Your task to perform on an android device: Open Google Chrome Image 0: 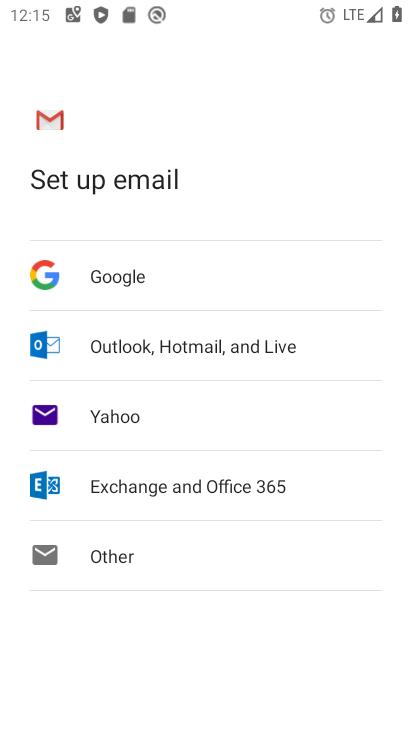
Step 0: press home button
Your task to perform on an android device: Open Google Chrome Image 1: 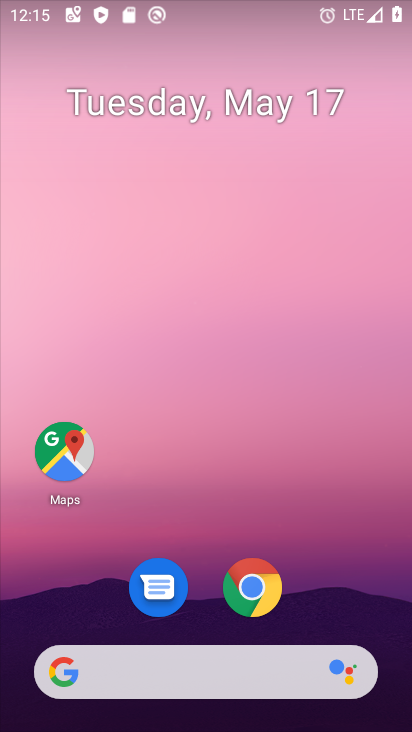
Step 1: drag from (382, 608) to (251, 77)
Your task to perform on an android device: Open Google Chrome Image 2: 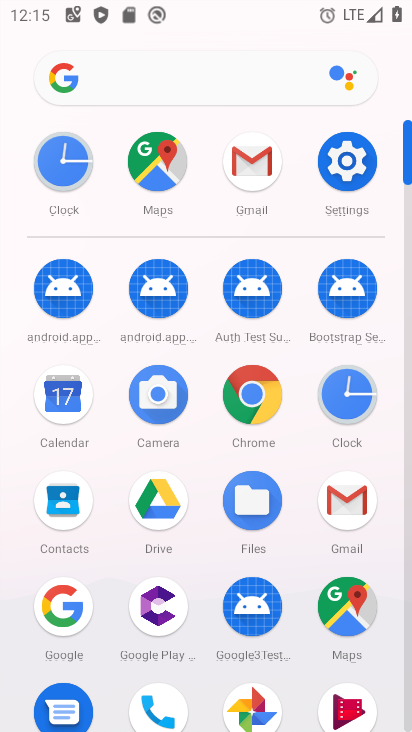
Step 2: click (240, 403)
Your task to perform on an android device: Open Google Chrome Image 3: 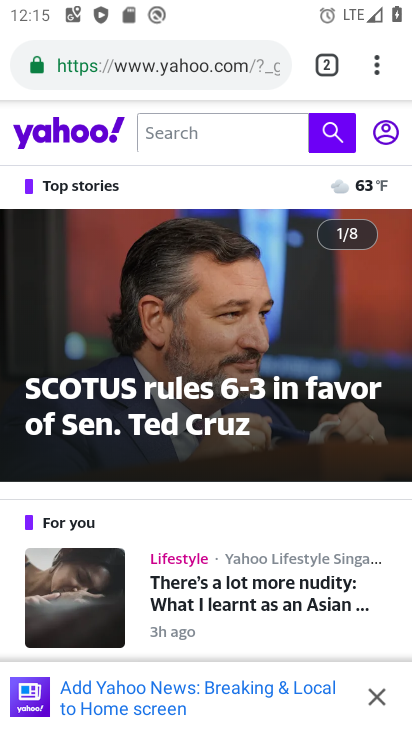
Step 3: task complete